Your task to perform on an android device: Play the last video I watched on Youtube Image 0: 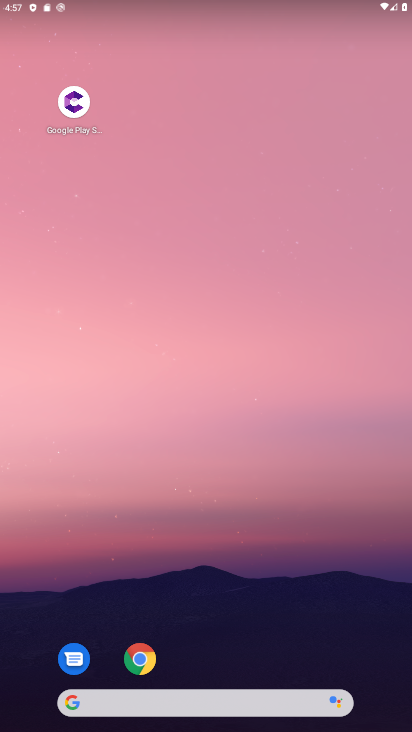
Step 0: drag from (247, 684) to (265, 103)
Your task to perform on an android device: Play the last video I watched on Youtube Image 1: 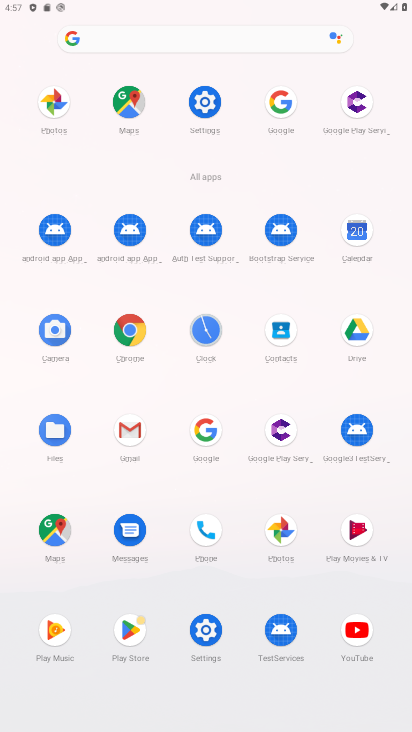
Step 1: click (356, 640)
Your task to perform on an android device: Play the last video I watched on Youtube Image 2: 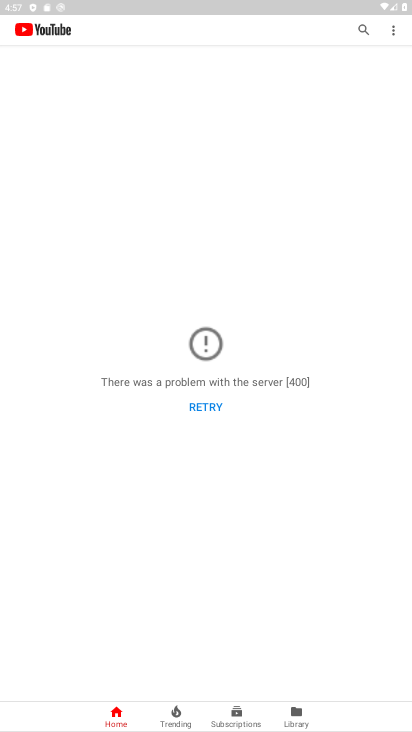
Step 2: click (286, 718)
Your task to perform on an android device: Play the last video I watched on Youtube Image 3: 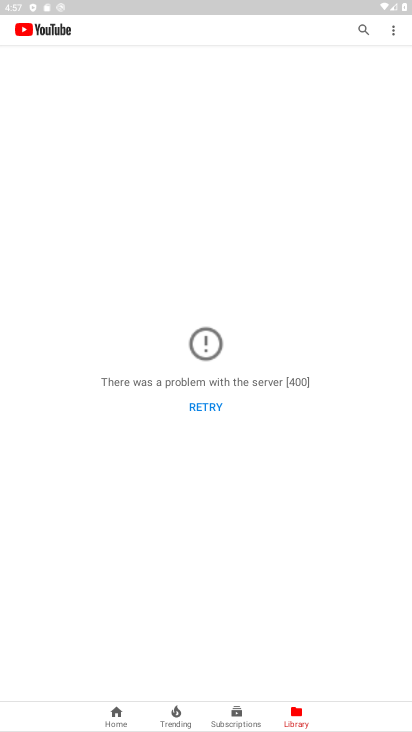
Step 3: task complete